Your task to perform on an android device: Open Youtube and go to "Your channel" Image 0: 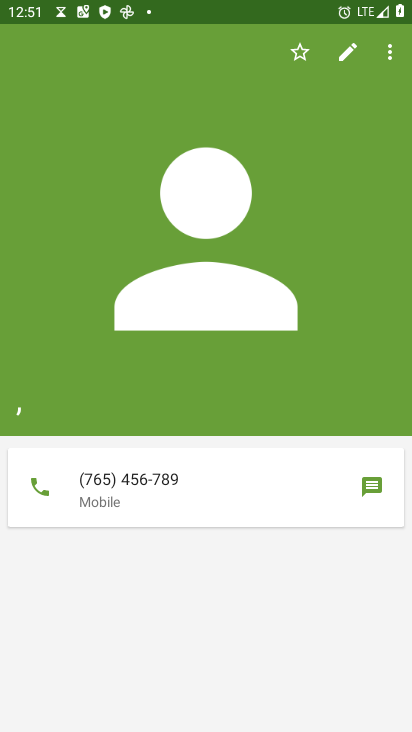
Step 0: press home button
Your task to perform on an android device: Open Youtube and go to "Your channel" Image 1: 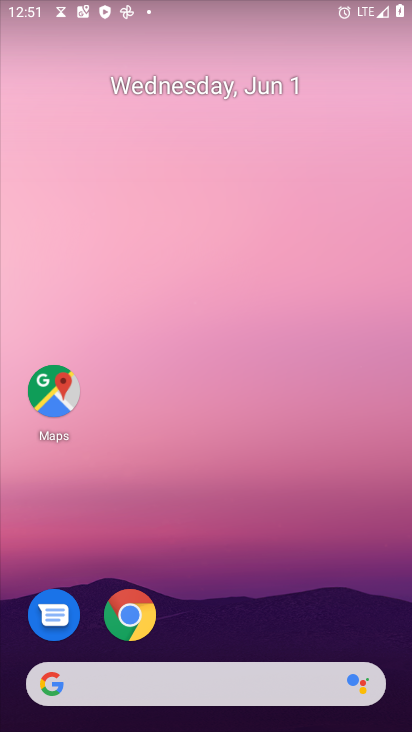
Step 1: drag from (285, 523) to (277, 71)
Your task to perform on an android device: Open Youtube and go to "Your channel" Image 2: 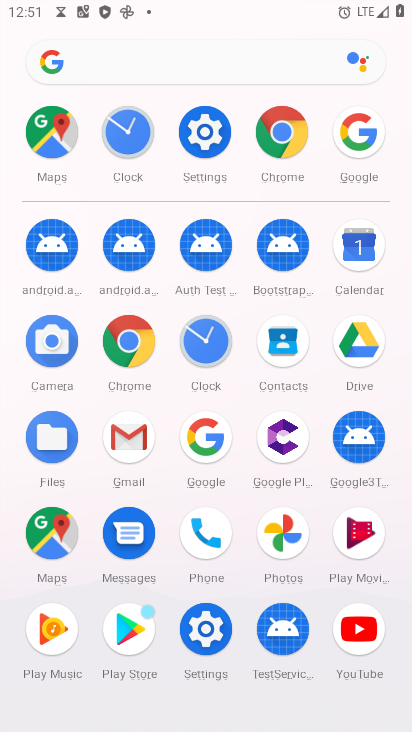
Step 2: click (368, 614)
Your task to perform on an android device: Open Youtube and go to "Your channel" Image 3: 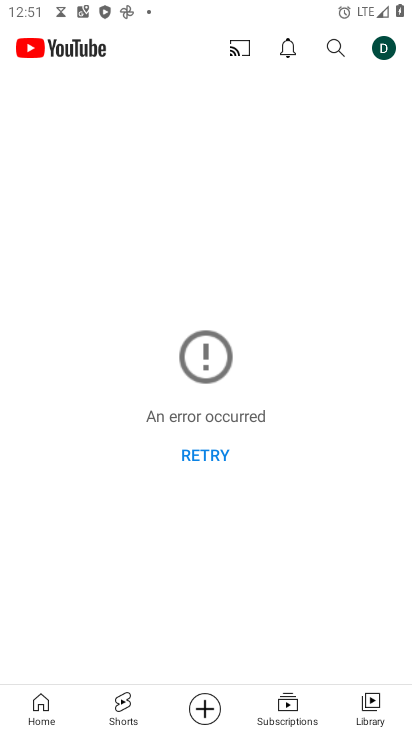
Step 3: click (384, 44)
Your task to perform on an android device: Open Youtube and go to "Your channel" Image 4: 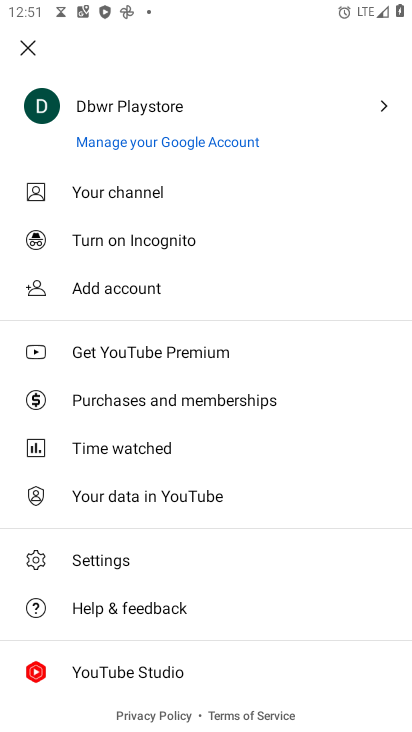
Step 4: click (69, 189)
Your task to perform on an android device: Open Youtube and go to "Your channel" Image 5: 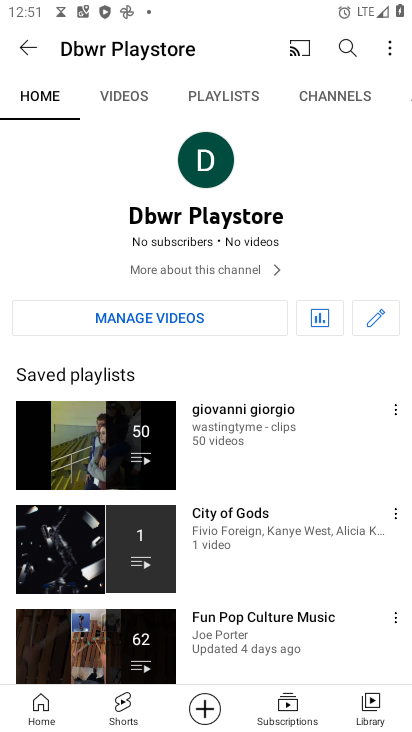
Step 5: task complete